Your task to perform on an android device: open a new tab in the chrome app Image 0: 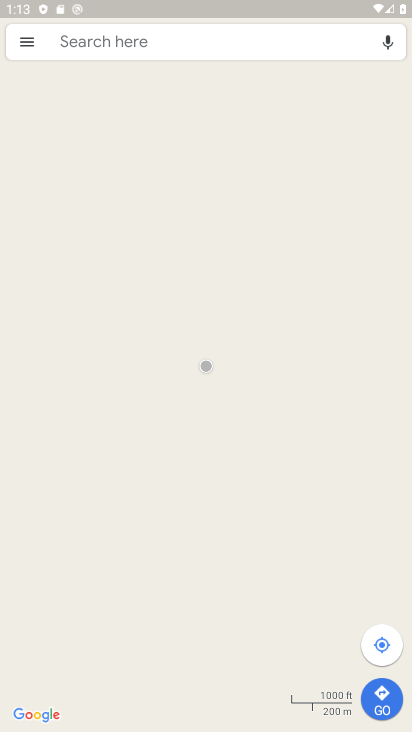
Step 0: press home button
Your task to perform on an android device: open a new tab in the chrome app Image 1: 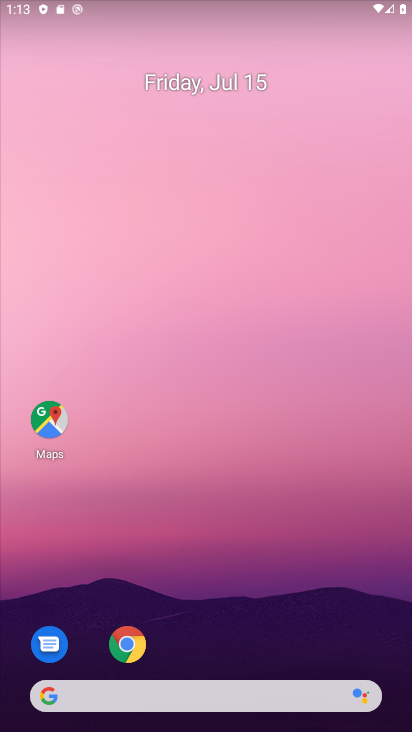
Step 1: drag from (395, 656) to (28, 242)
Your task to perform on an android device: open a new tab in the chrome app Image 2: 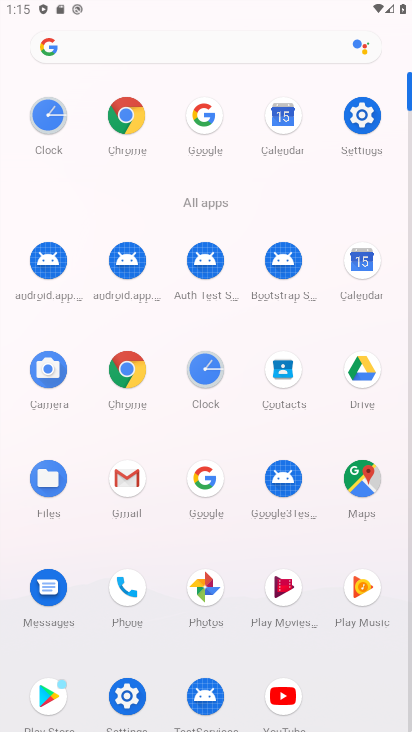
Step 2: click (127, 355)
Your task to perform on an android device: open a new tab in the chrome app Image 3: 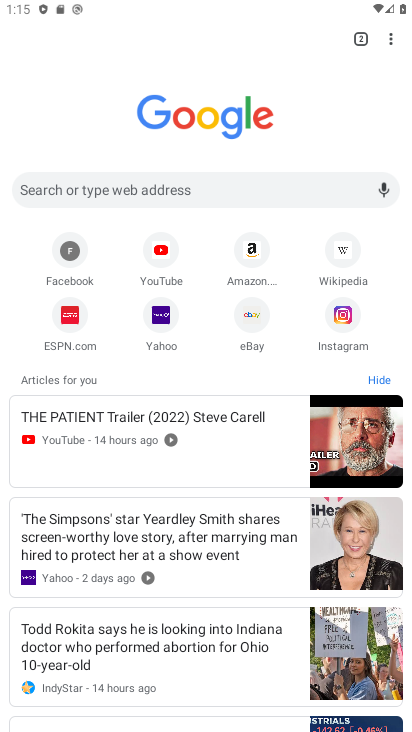
Step 3: click (390, 38)
Your task to perform on an android device: open a new tab in the chrome app Image 4: 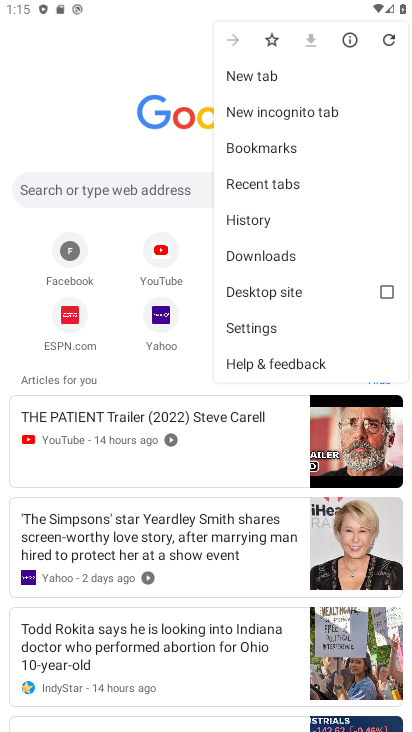
Step 4: click (268, 78)
Your task to perform on an android device: open a new tab in the chrome app Image 5: 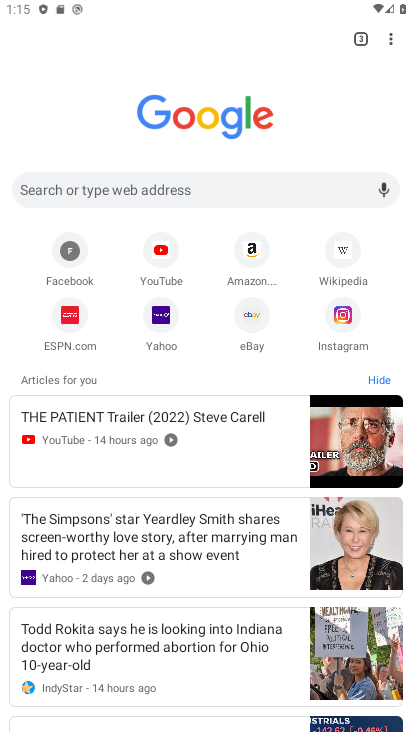
Step 5: task complete